Your task to perform on an android device: set the stopwatch Image 0: 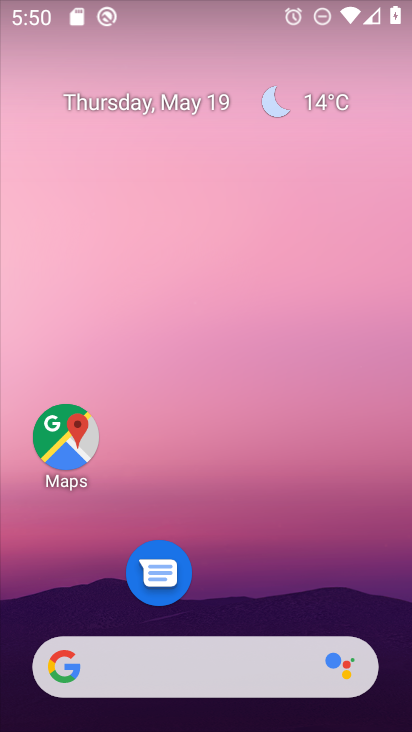
Step 0: drag from (238, 597) to (252, 99)
Your task to perform on an android device: set the stopwatch Image 1: 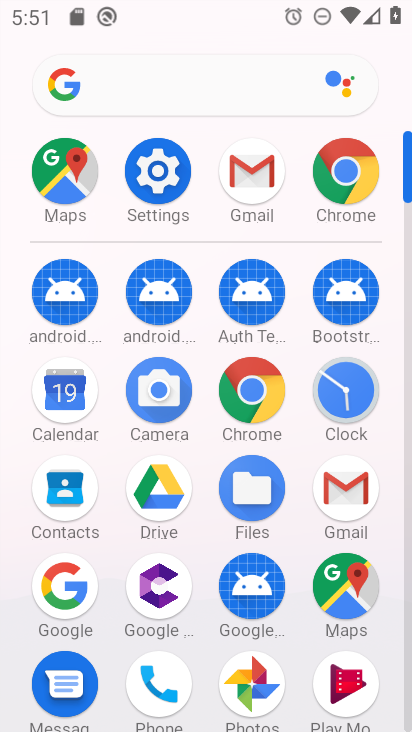
Step 1: click (339, 408)
Your task to perform on an android device: set the stopwatch Image 2: 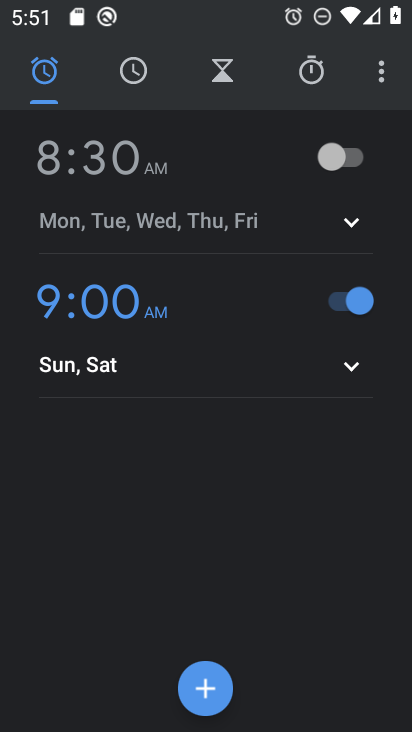
Step 2: click (312, 72)
Your task to perform on an android device: set the stopwatch Image 3: 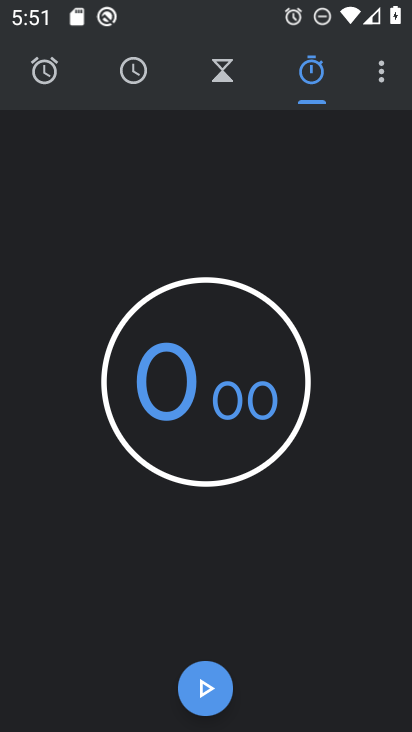
Step 3: click (202, 689)
Your task to perform on an android device: set the stopwatch Image 4: 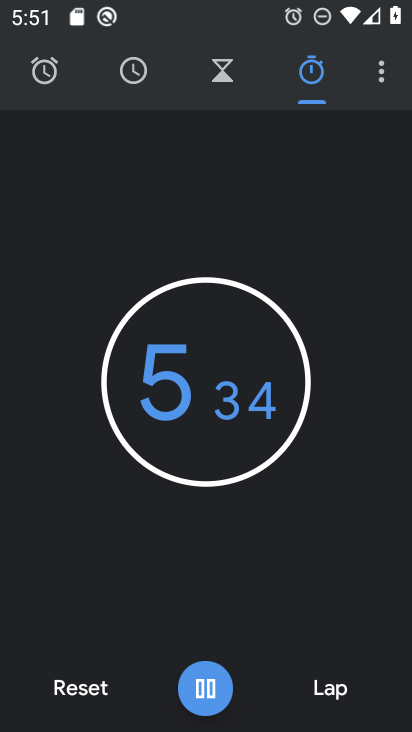
Step 4: click (202, 689)
Your task to perform on an android device: set the stopwatch Image 5: 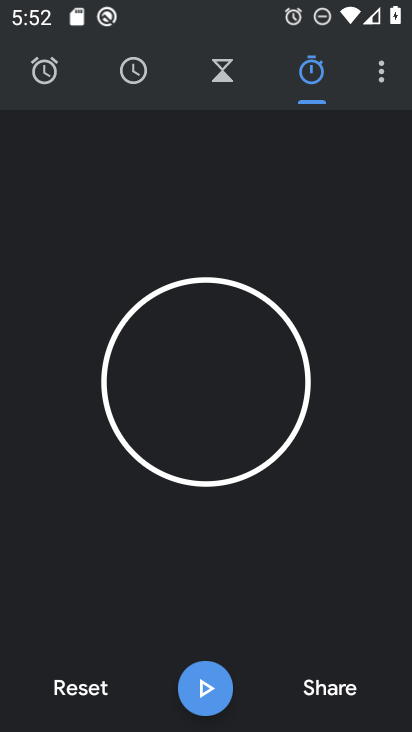
Step 5: task complete